Your task to perform on an android device: Is it going to rain this weekend? Image 0: 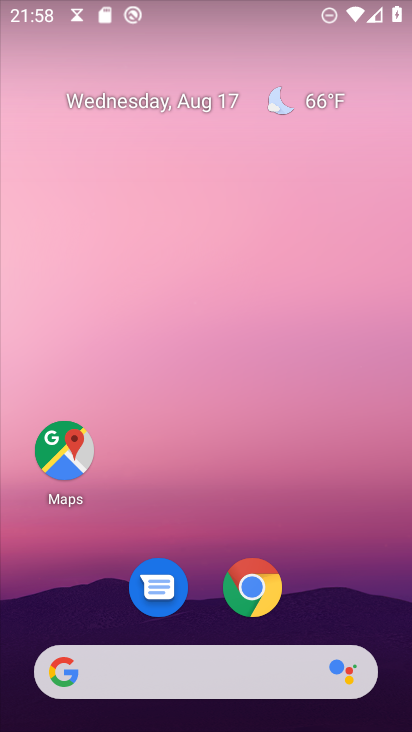
Step 0: click (116, 664)
Your task to perform on an android device: Is it going to rain this weekend? Image 1: 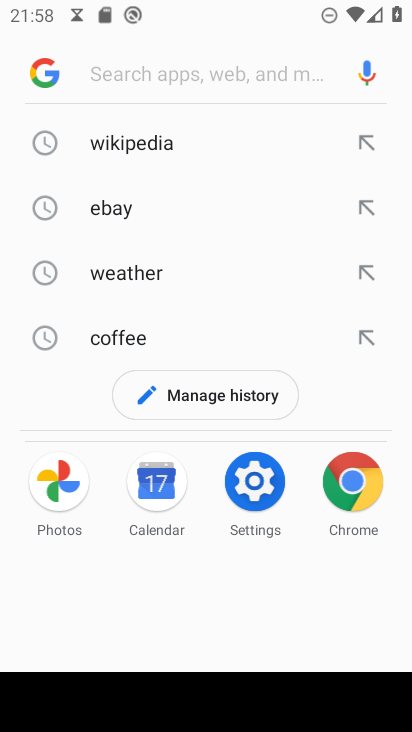
Step 1: type "Is it going to rain this weekend?"
Your task to perform on an android device: Is it going to rain this weekend? Image 2: 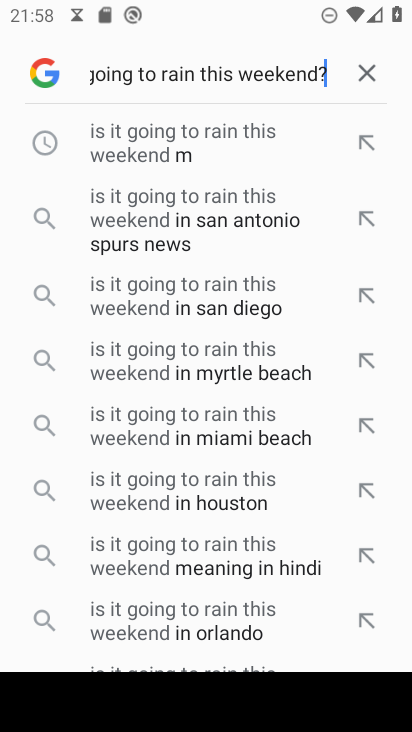
Step 2: type ""
Your task to perform on an android device: Is it going to rain this weekend? Image 3: 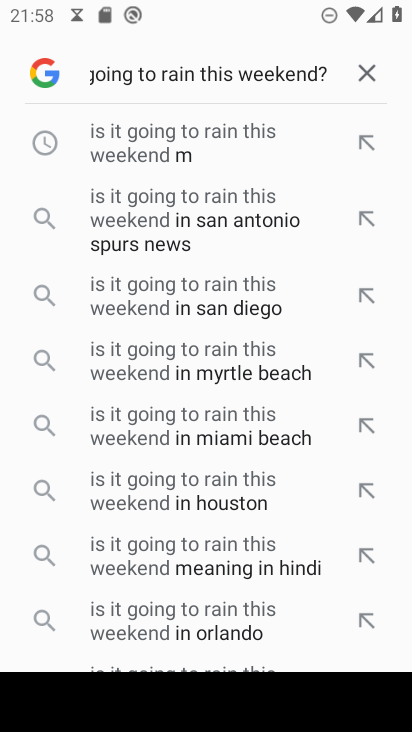
Step 3: type ""
Your task to perform on an android device: Is it going to rain this weekend? Image 4: 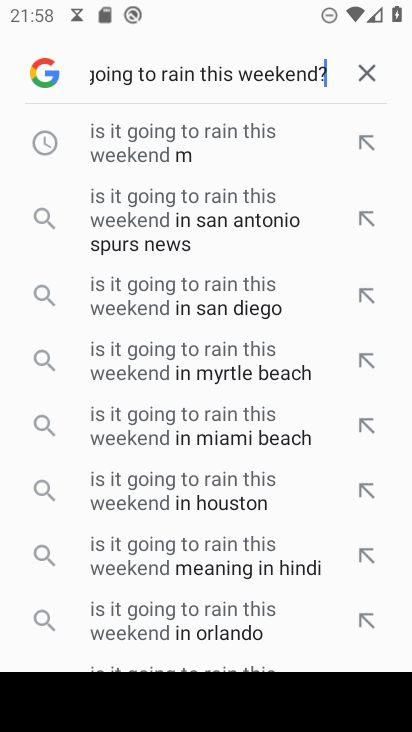
Step 4: task complete